Your task to perform on an android device: install app "Walmart Shopping & Grocery" Image 0: 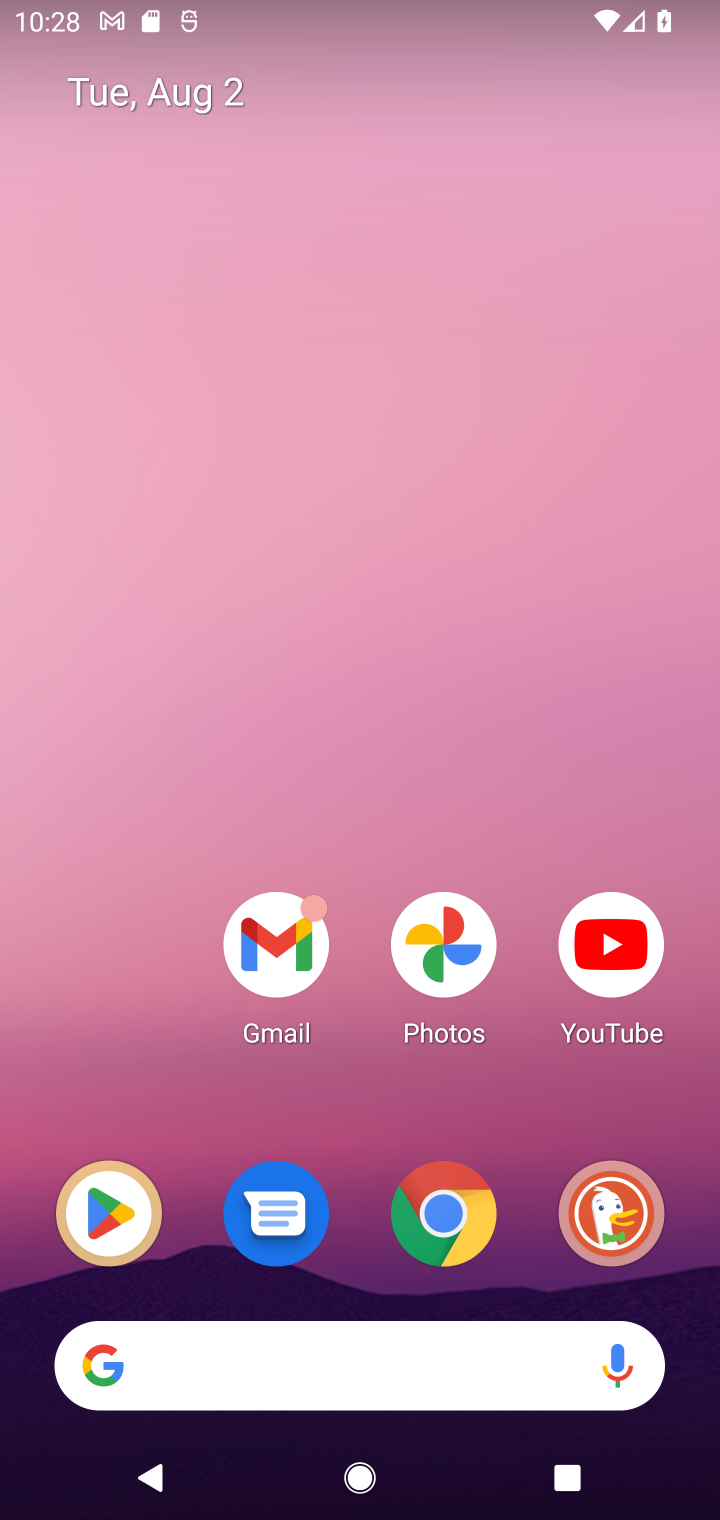
Step 0: click (112, 1226)
Your task to perform on an android device: install app "Walmart Shopping & Grocery" Image 1: 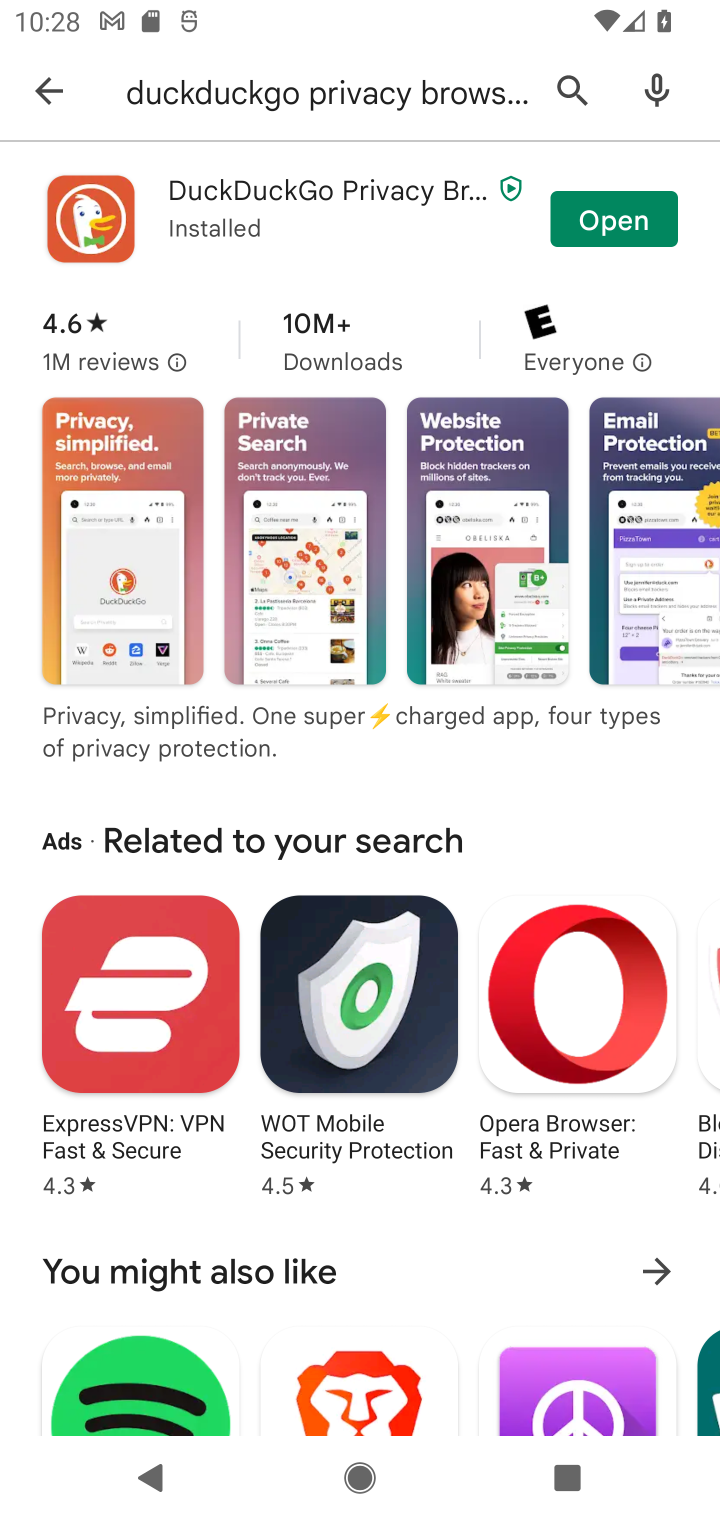
Step 1: click (48, 95)
Your task to perform on an android device: install app "Walmart Shopping & Grocery" Image 2: 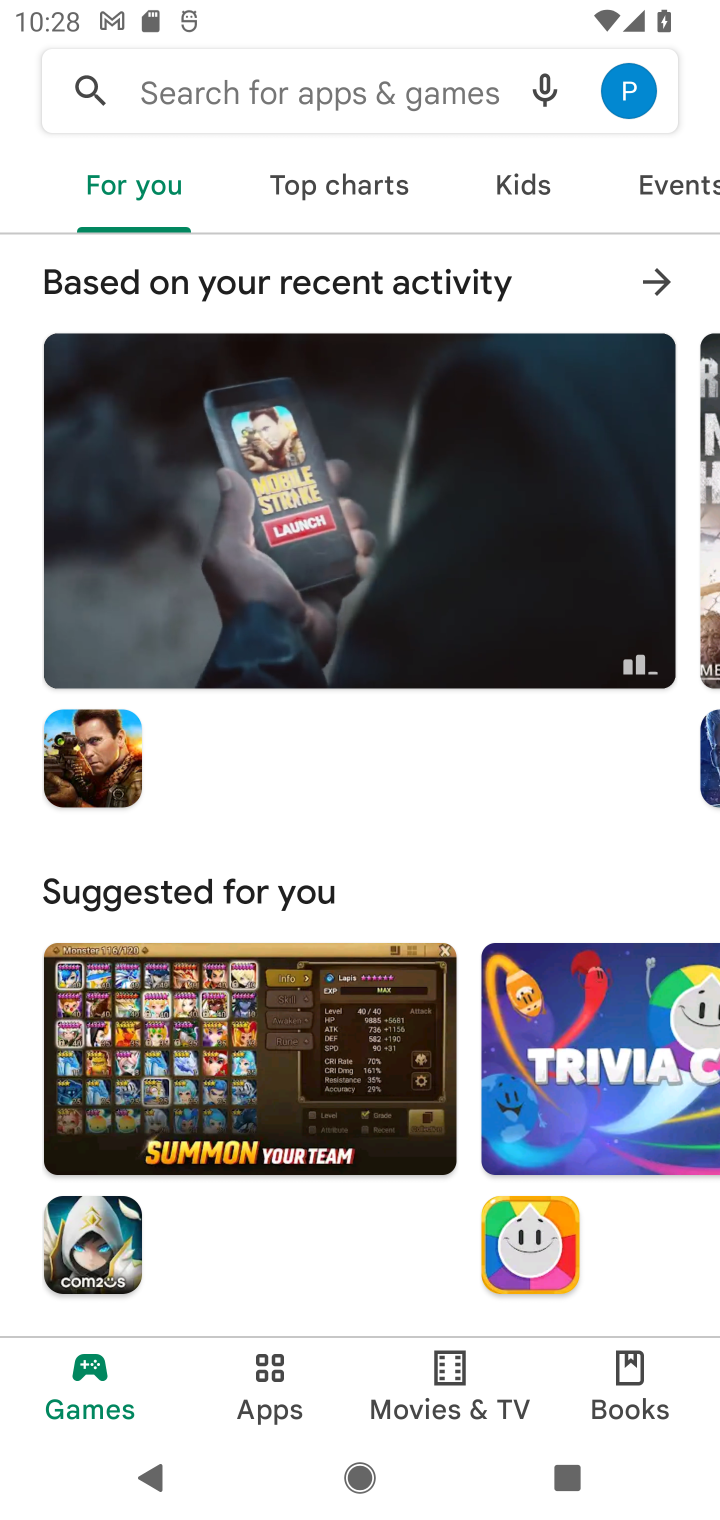
Step 2: click (344, 99)
Your task to perform on an android device: install app "Walmart Shopping & Grocery" Image 3: 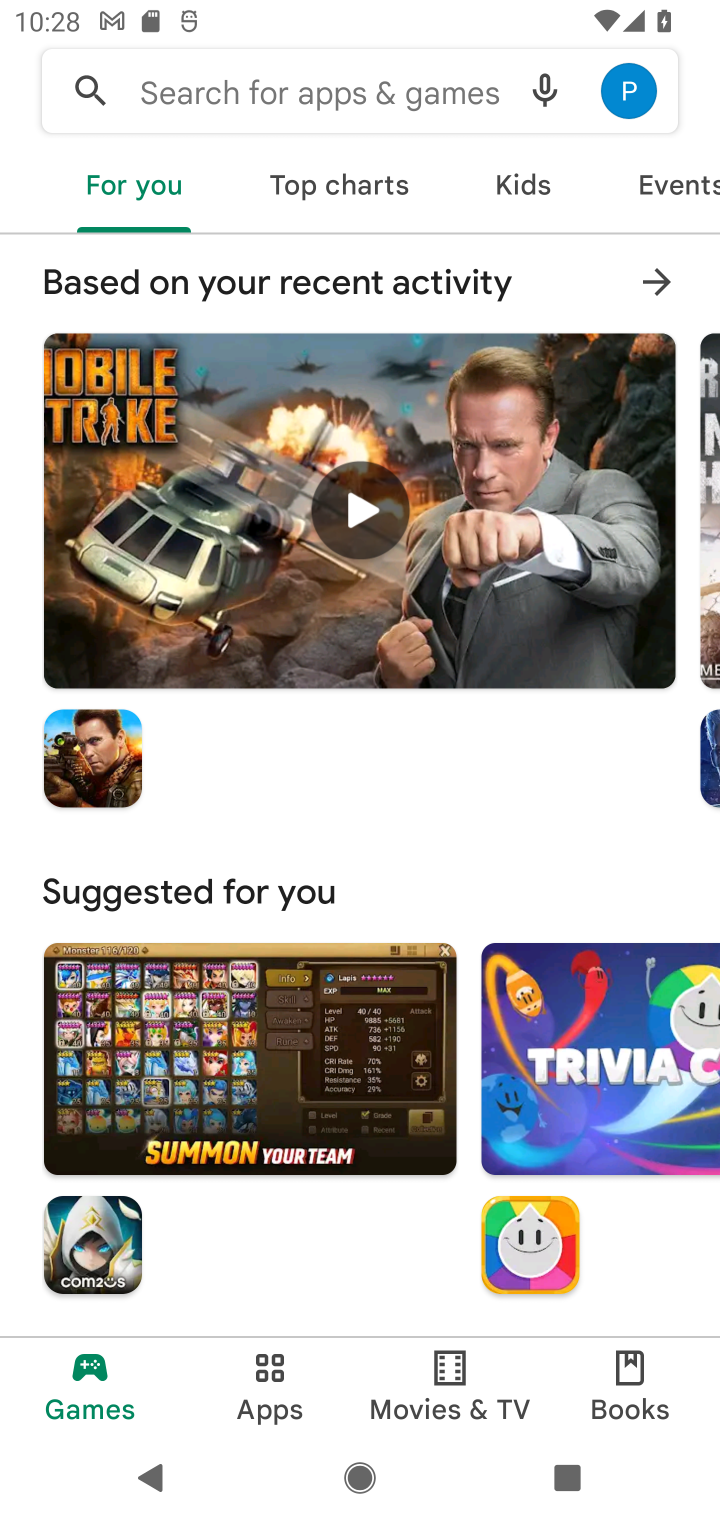
Step 3: click (231, 92)
Your task to perform on an android device: install app "Walmart Shopping & Grocery" Image 4: 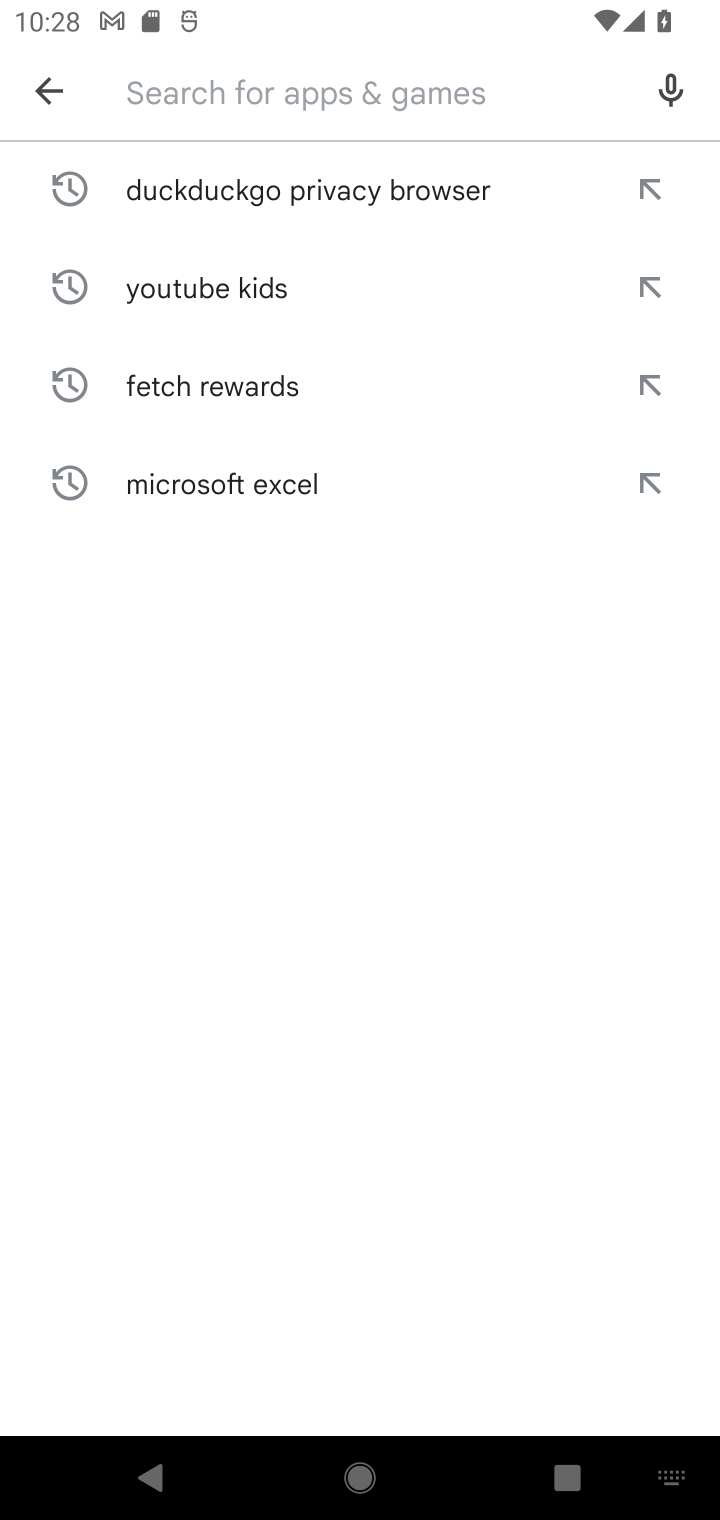
Step 4: type "Walmart Shopping & Grocery"
Your task to perform on an android device: install app "Walmart Shopping & Grocery" Image 5: 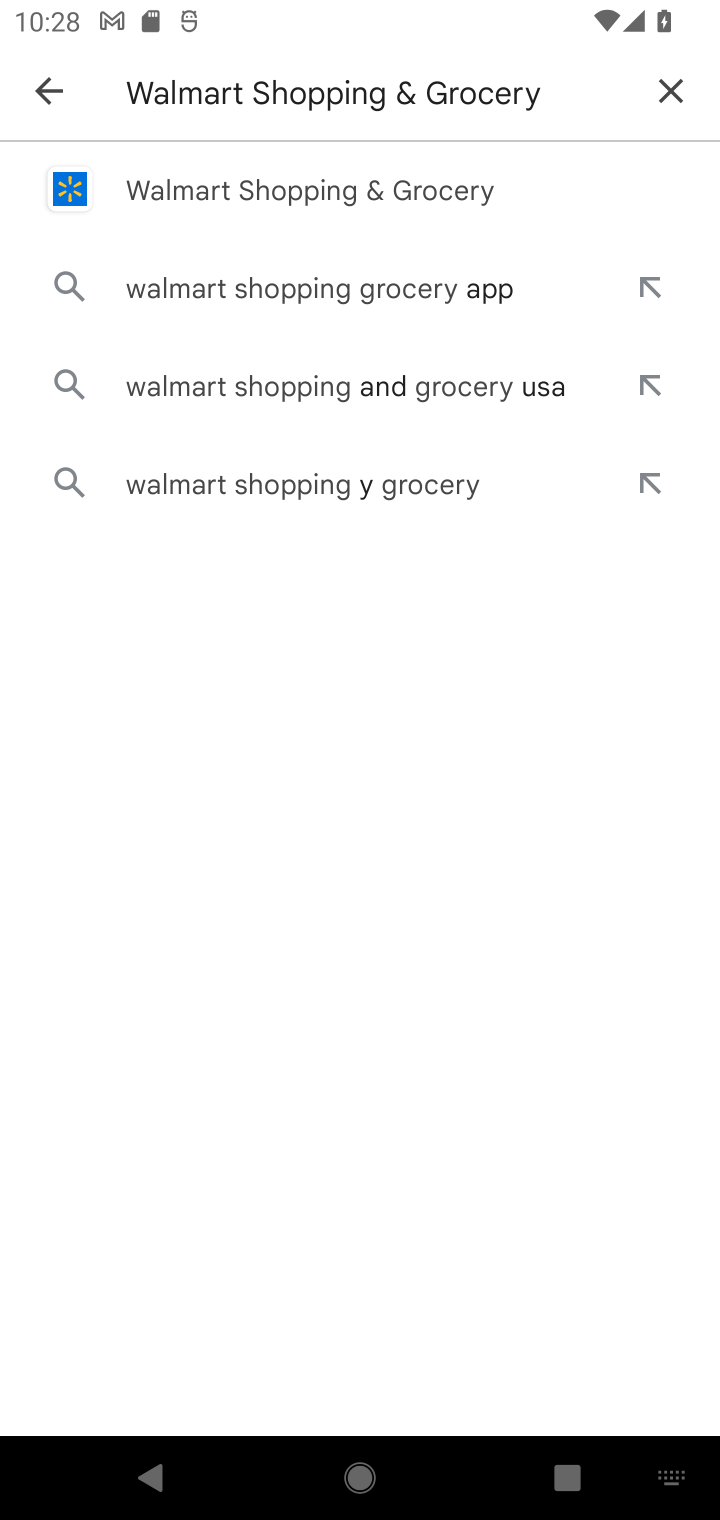
Step 5: click (408, 203)
Your task to perform on an android device: install app "Walmart Shopping & Grocery" Image 6: 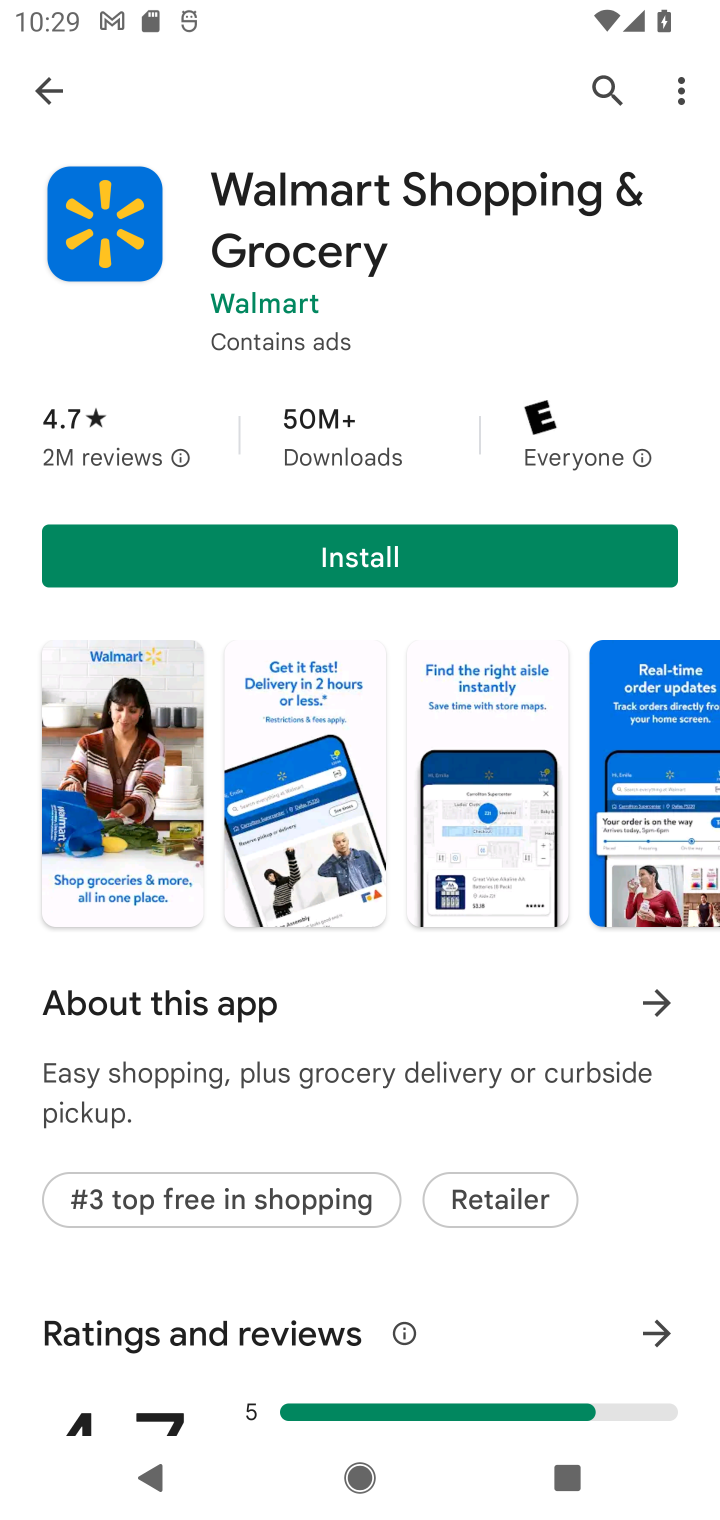
Step 6: click (322, 554)
Your task to perform on an android device: install app "Walmart Shopping & Grocery" Image 7: 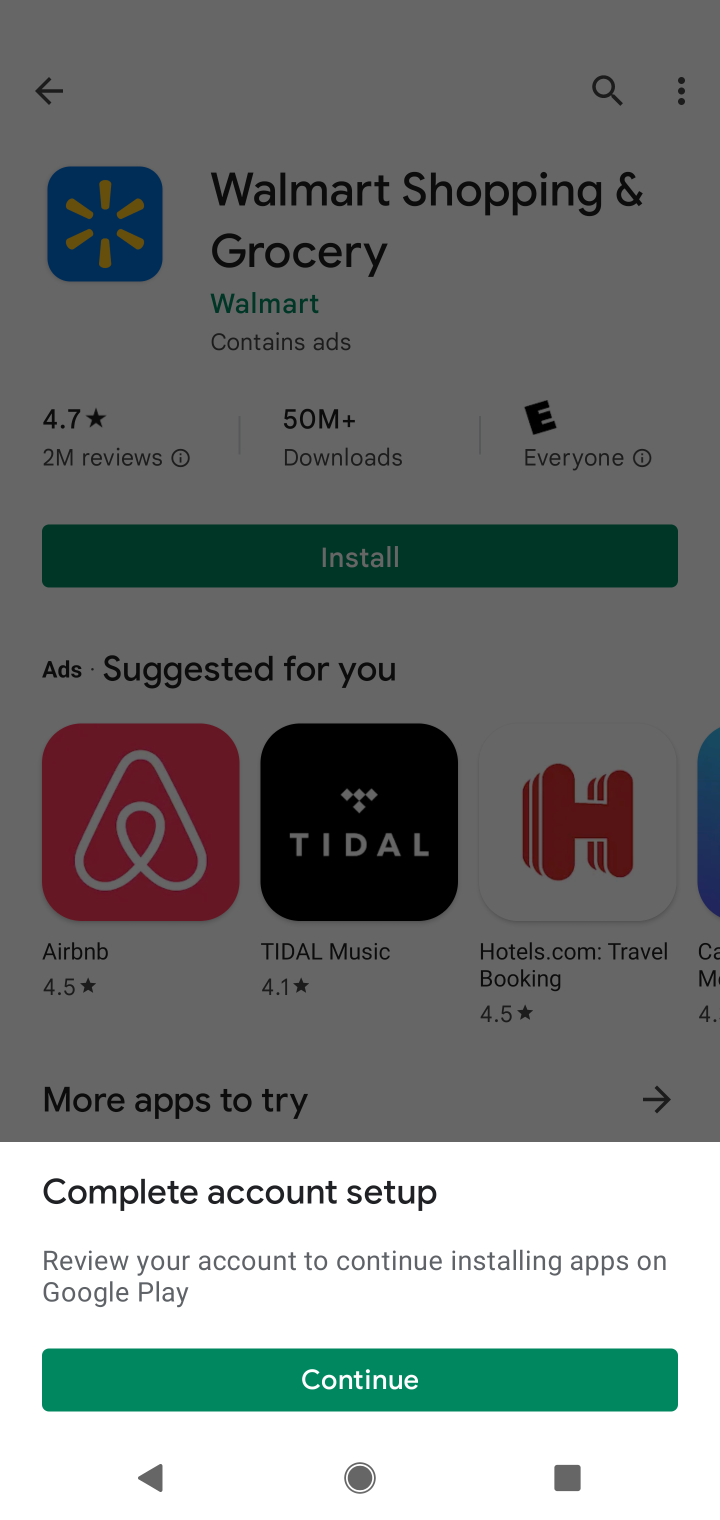
Step 7: click (403, 1367)
Your task to perform on an android device: install app "Walmart Shopping & Grocery" Image 8: 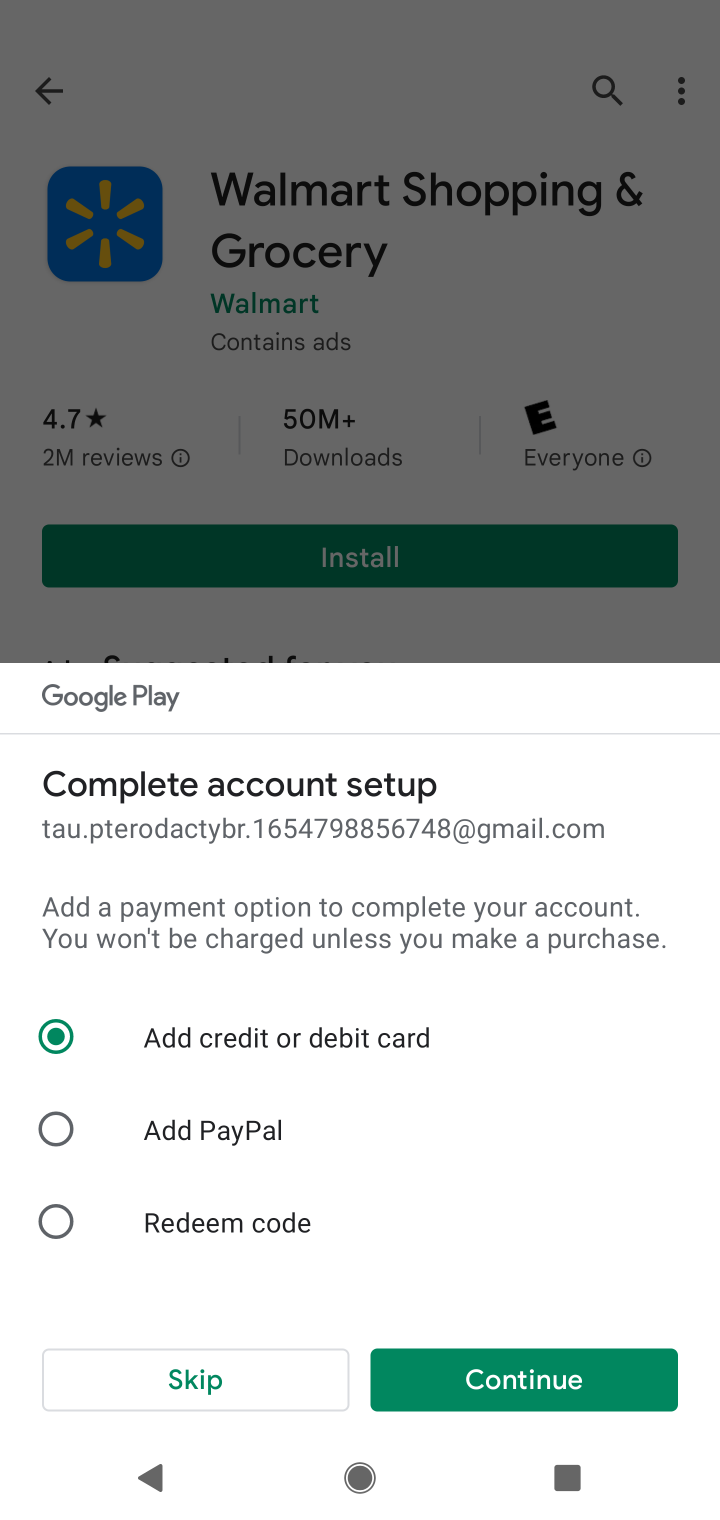
Step 8: click (211, 1363)
Your task to perform on an android device: install app "Walmart Shopping & Grocery" Image 9: 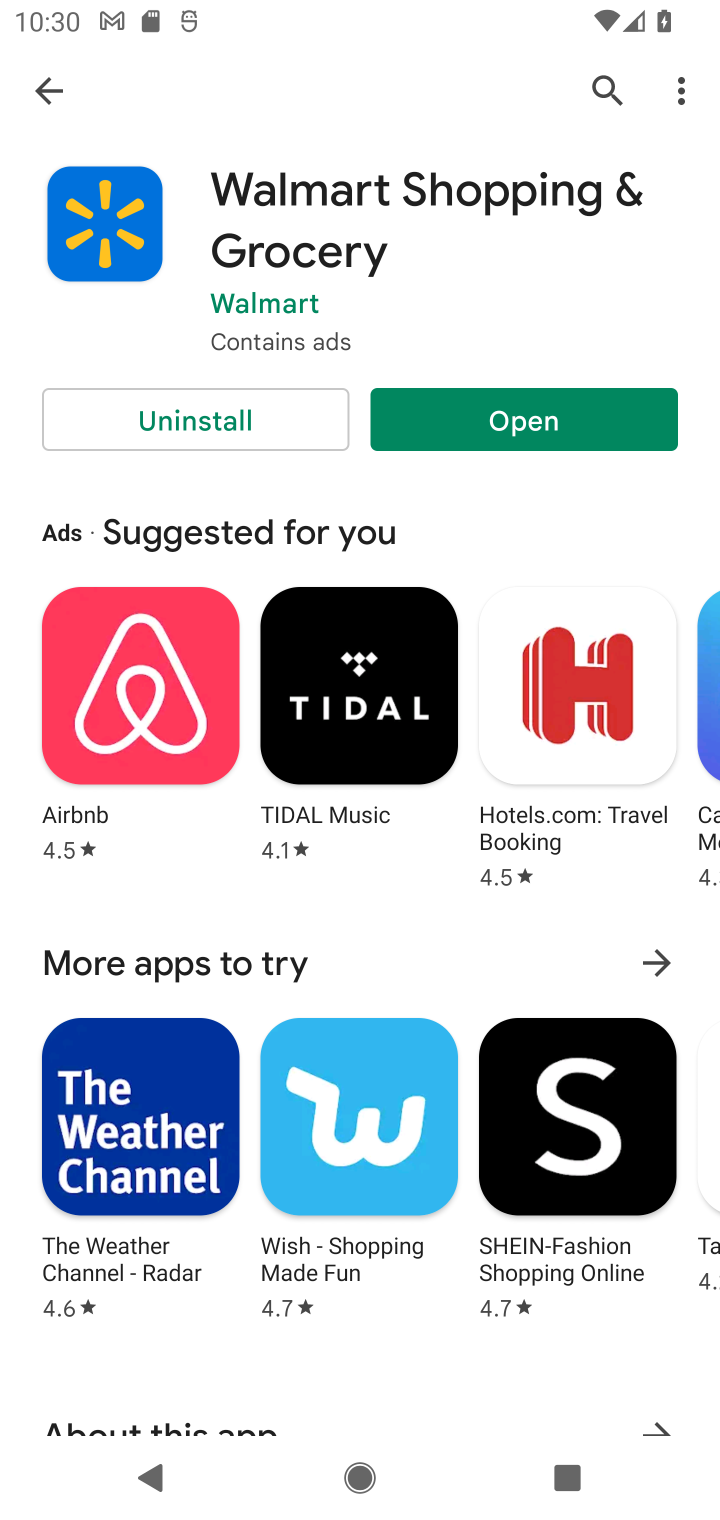
Step 9: click (515, 406)
Your task to perform on an android device: install app "Walmart Shopping & Grocery" Image 10: 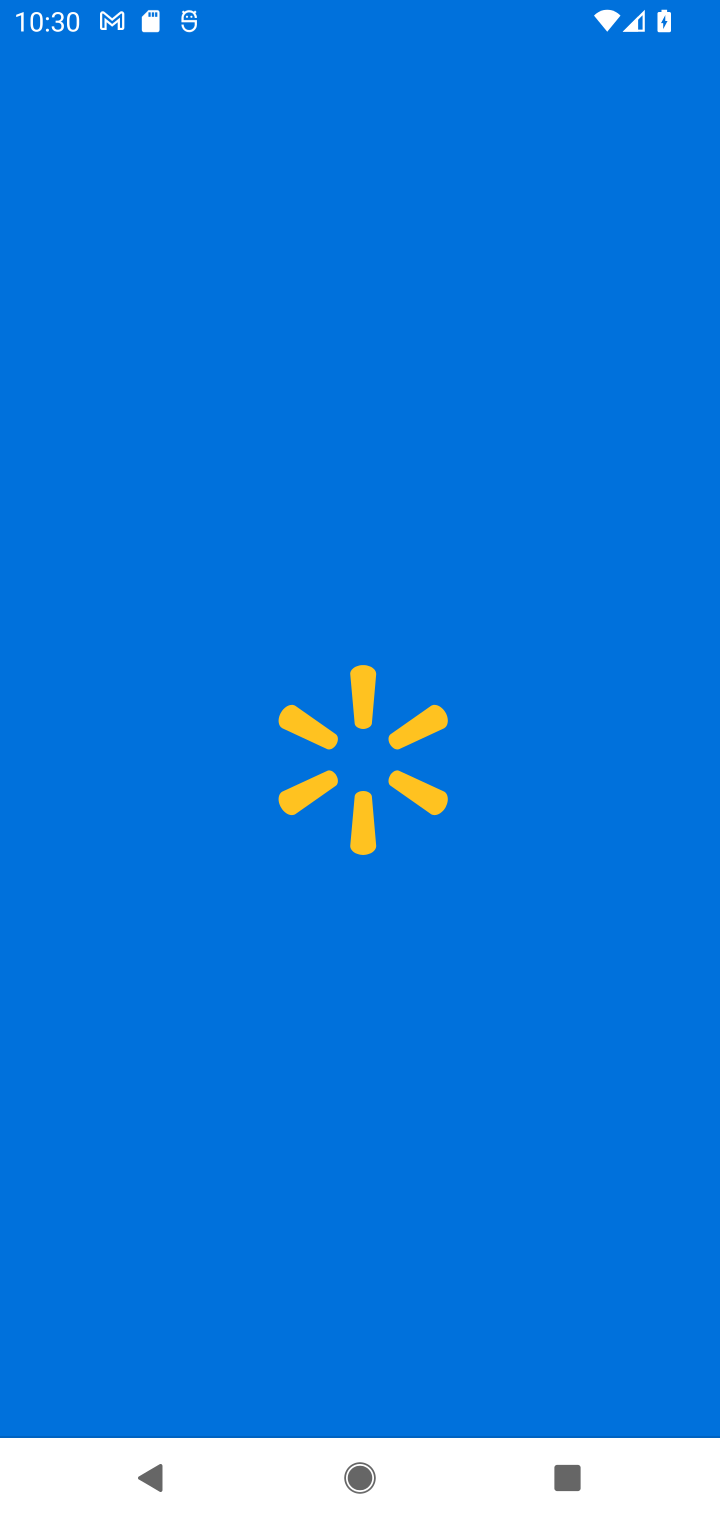
Step 10: task complete